Your task to perform on an android device: stop showing notifications on the lock screen Image 0: 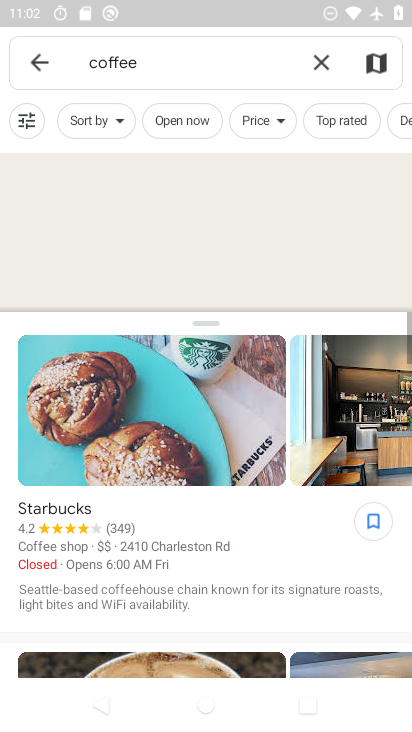
Step 0: press home button
Your task to perform on an android device: stop showing notifications on the lock screen Image 1: 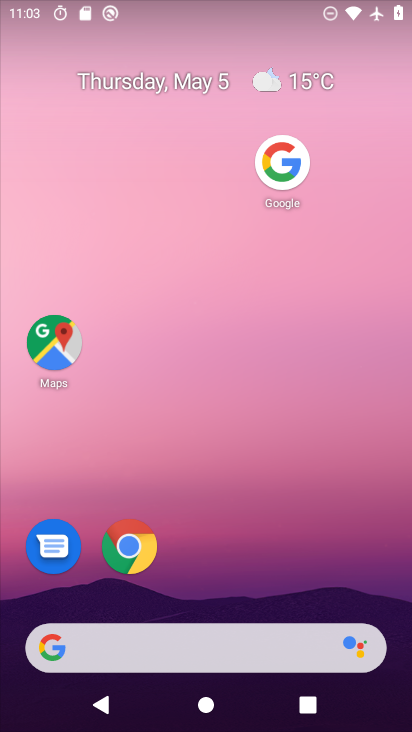
Step 1: drag from (223, 631) to (355, 46)
Your task to perform on an android device: stop showing notifications on the lock screen Image 2: 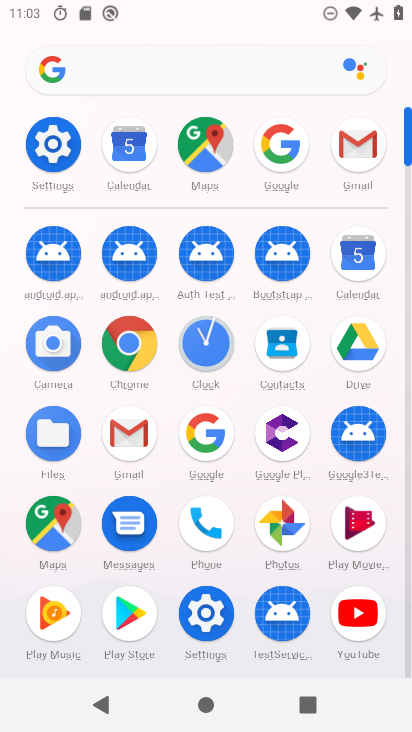
Step 2: click (46, 150)
Your task to perform on an android device: stop showing notifications on the lock screen Image 3: 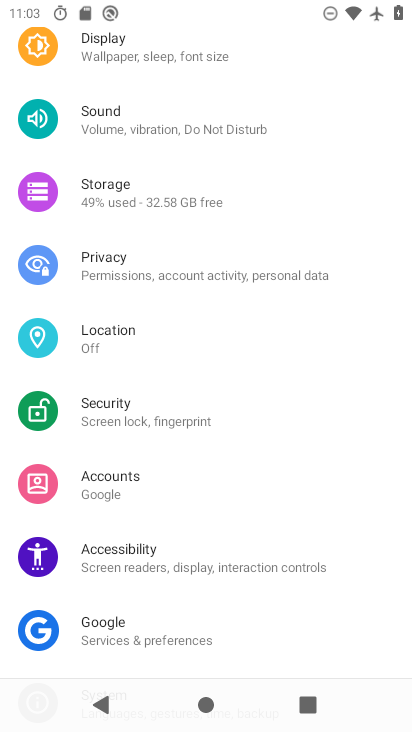
Step 3: drag from (286, 168) to (182, 616)
Your task to perform on an android device: stop showing notifications on the lock screen Image 4: 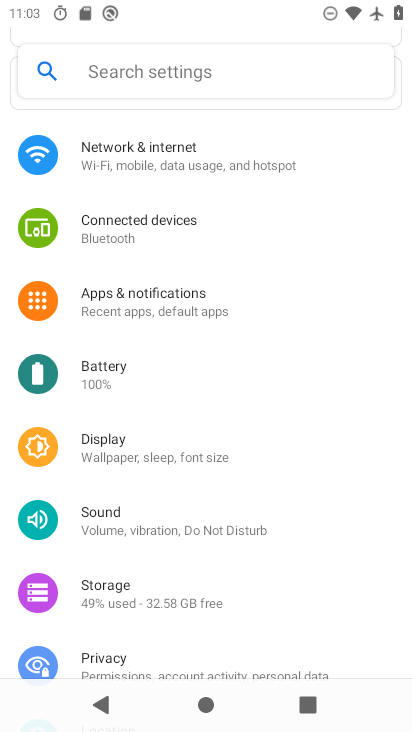
Step 4: click (152, 300)
Your task to perform on an android device: stop showing notifications on the lock screen Image 5: 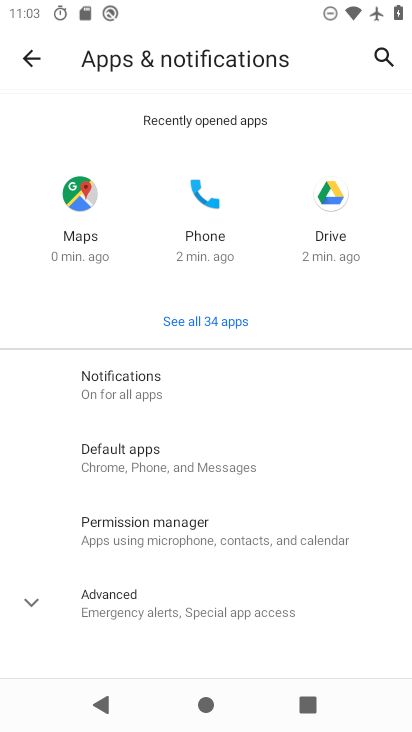
Step 5: click (142, 388)
Your task to perform on an android device: stop showing notifications on the lock screen Image 6: 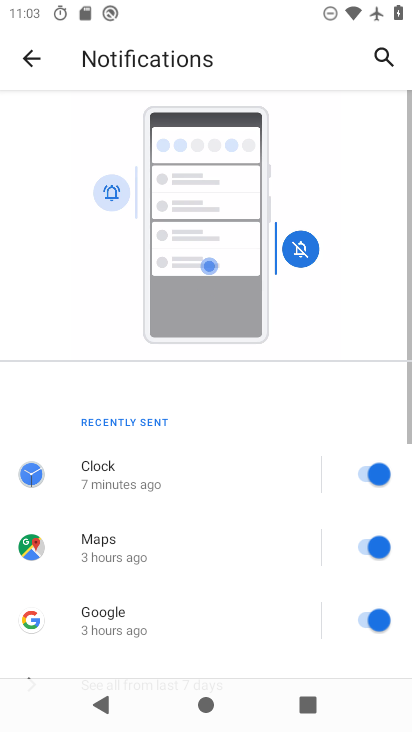
Step 6: drag from (174, 613) to (272, 267)
Your task to perform on an android device: stop showing notifications on the lock screen Image 7: 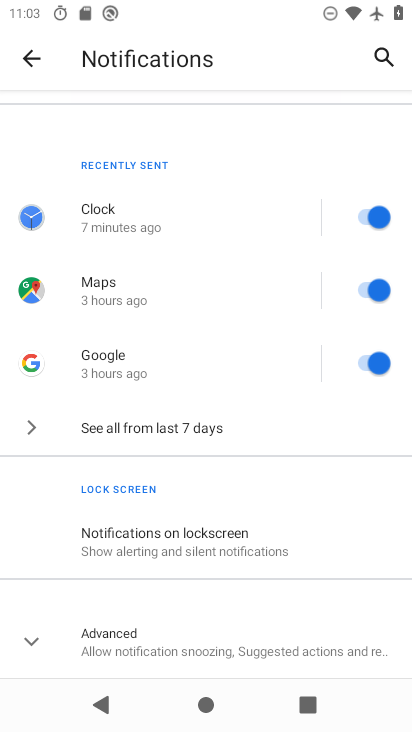
Step 7: click (176, 531)
Your task to perform on an android device: stop showing notifications on the lock screen Image 8: 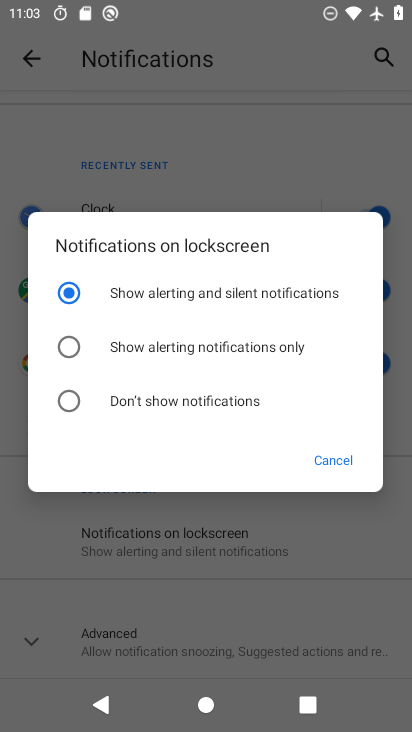
Step 8: click (74, 398)
Your task to perform on an android device: stop showing notifications on the lock screen Image 9: 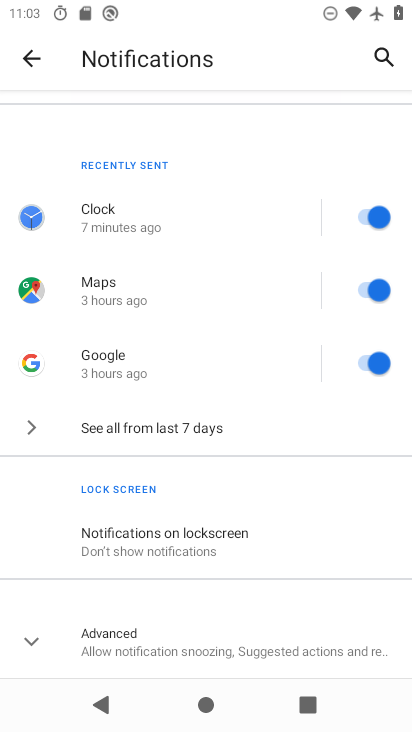
Step 9: task complete